Your task to perform on an android device: Open battery settings Image 0: 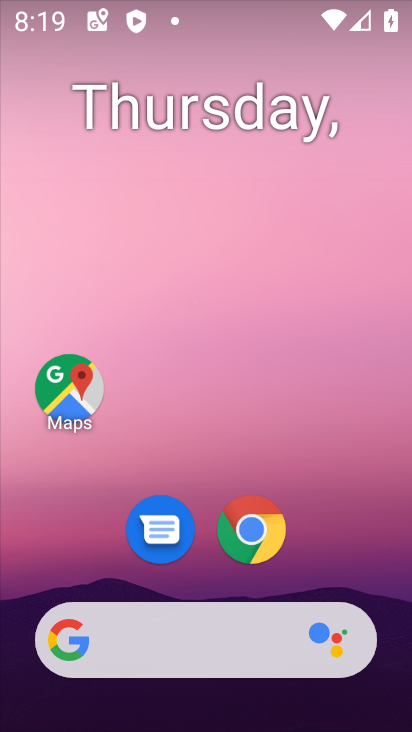
Step 0: drag from (191, 715) to (226, 102)
Your task to perform on an android device: Open battery settings Image 1: 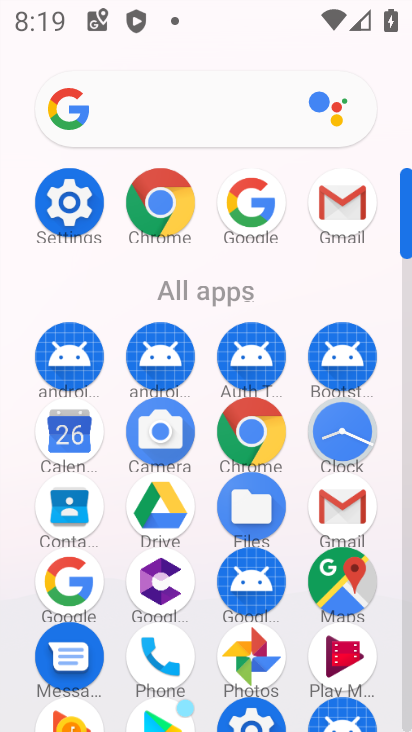
Step 1: click (63, 200)
Your task to perform on an android device: Open battery settings Image 2: 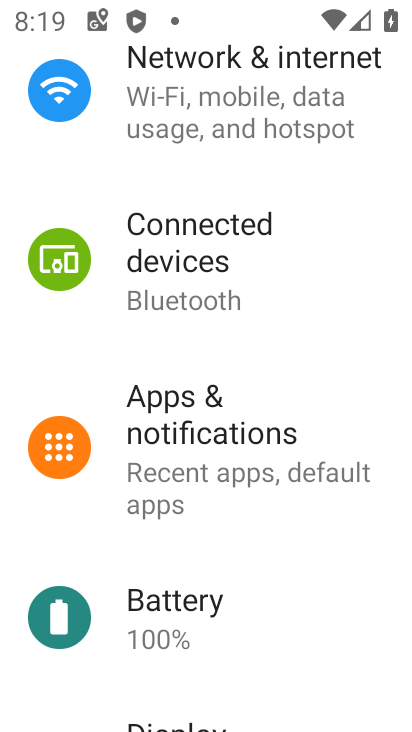
Step 2: click (163, 605)
Your task to perform on an android device: Open battery settings Image 3: 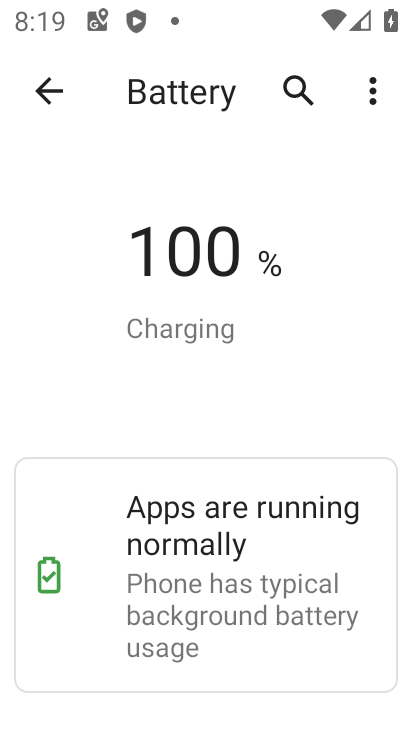
Step 3: task complete